Your task to perform on an android device: Go to Yahoo.com Image 0: 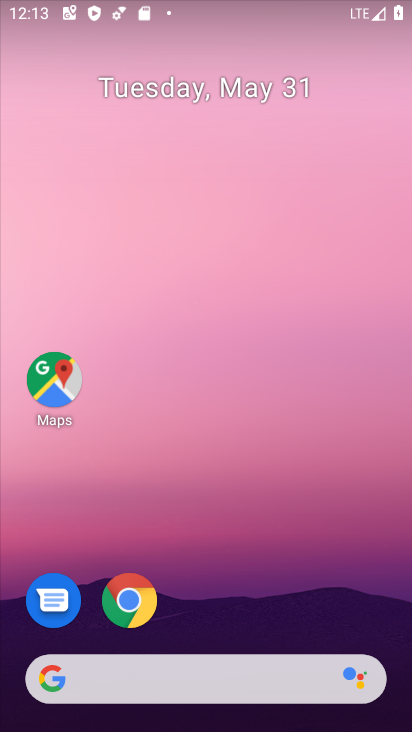
Step 0: click (129, 598)
Your task to perform on an android device: Go to Yahoo.com Image 1: 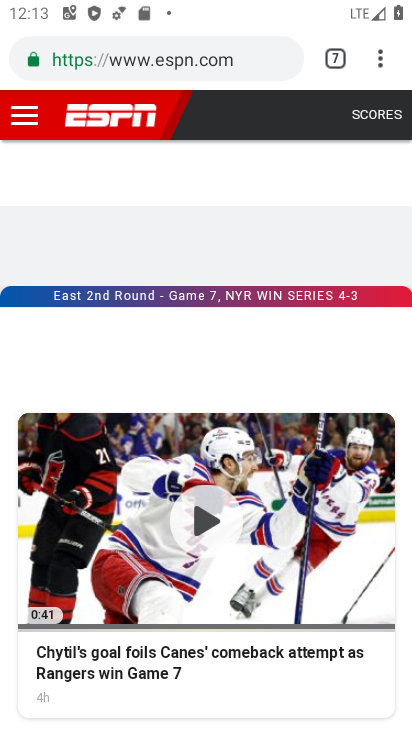
Step 1: click (381, 63)
Your task to perform on an android device: Go to Yahoo.com Image 2: 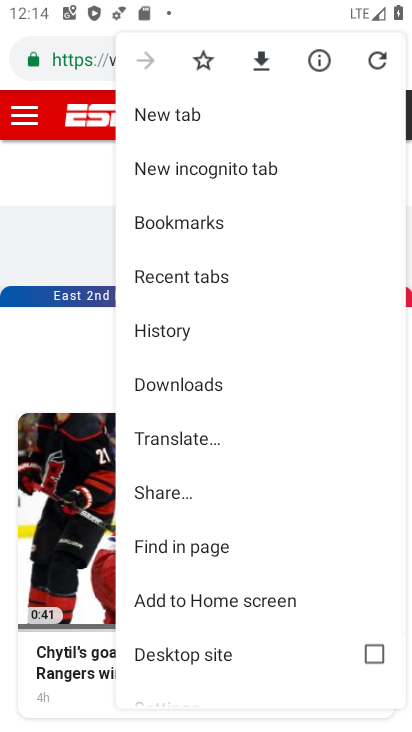
Step 2: click (169, 116)
Your task to perform on an android device: Go to Yahoo.com Image 3: 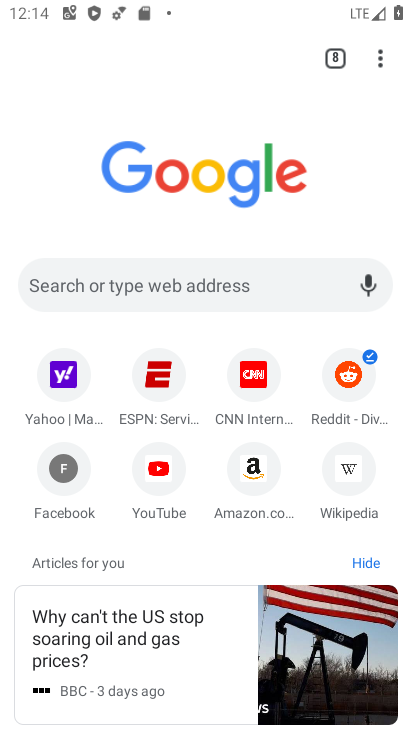
Step 3: click (63, 376)
Your task to perform on an android device: Go to Yahoo.com Image 4: 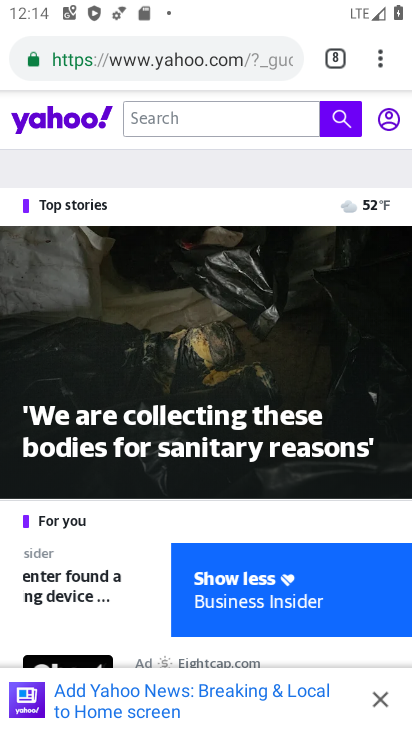
Step 4: task complete